Your task to perform on an android device: turn on bluetooth scan Image 0: 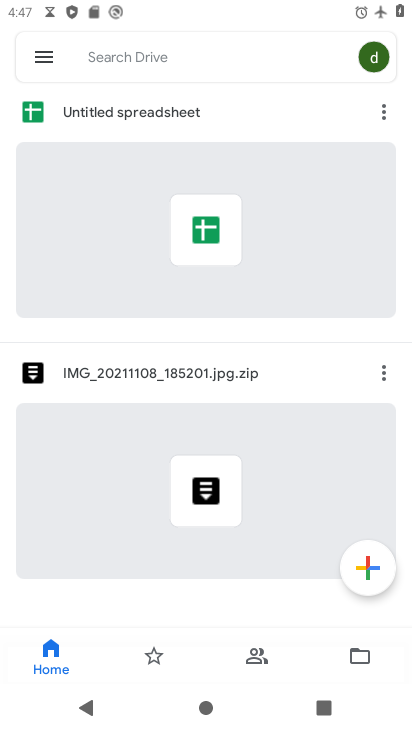
Step 0: press home button
Your task to perform on an android device: turn on bluetooth scan Image 1: 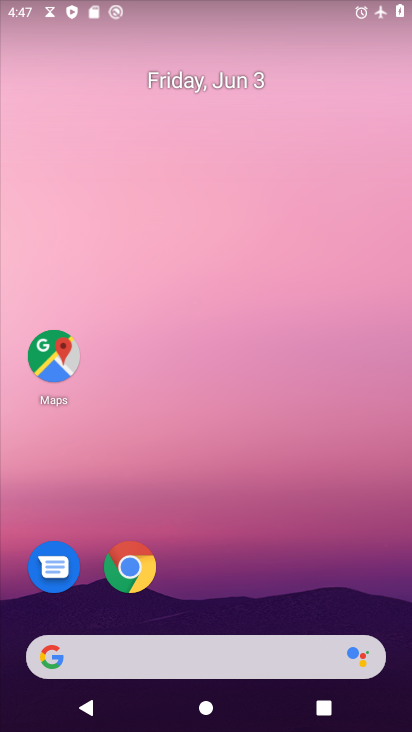
Step 1: drag from (261, 558) to (316, 43)
Your task to perform on an android device: turn on bluetooth scan Image 2: 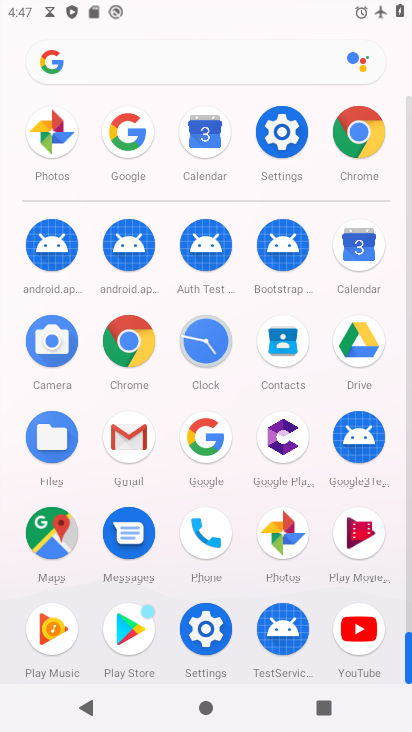
Step 2: click (280, 134)
Your task to perform on an android device: turn on bluetooth scan Image 3: 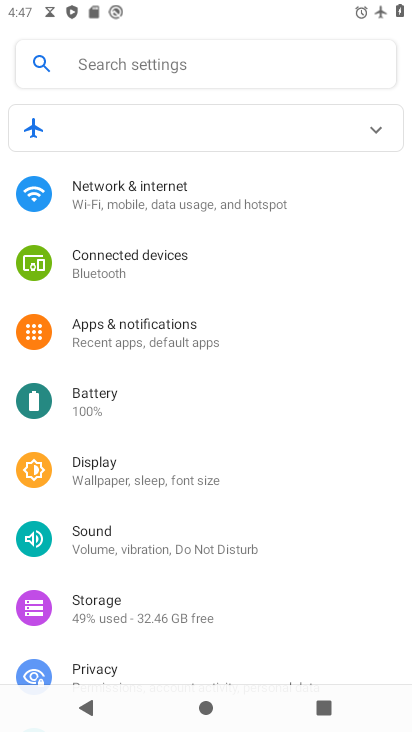
Step 3: drag from (167, 354) to (174, 211)
Your task to perform on an android device: turn on bluetooth scan Image 4: 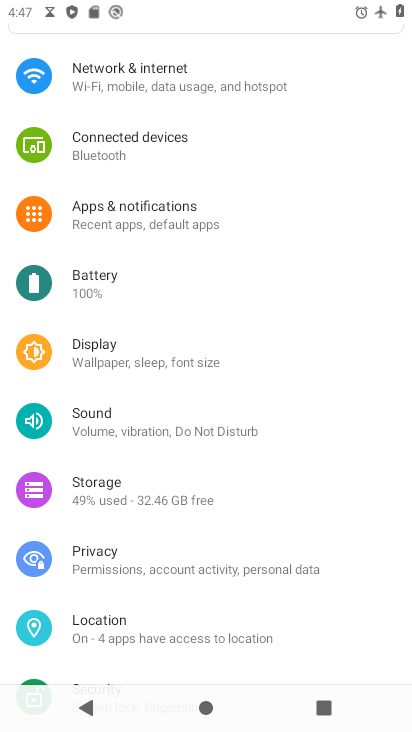
Step 4: drag from (153, 382) to (197, 273)
Your task to perform on an android device: turn on bluetooth scan Image 5: 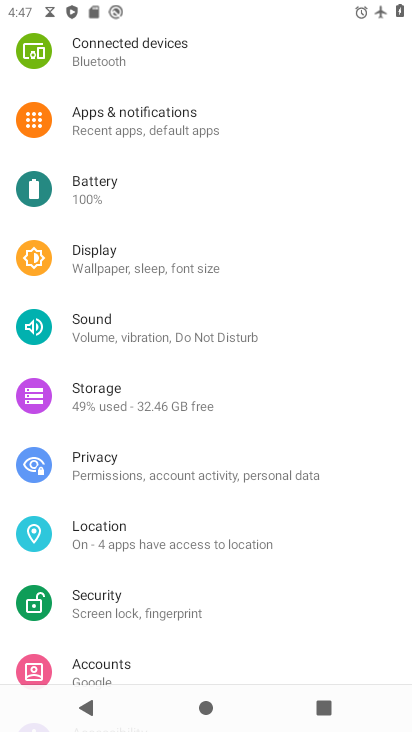
Step 5: click (191, 530)
Your task to perform on an android device: turn on bluetooth scan Image 6: 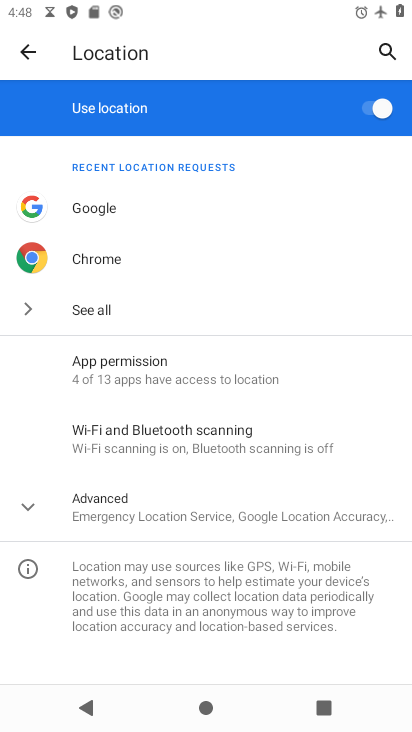
Step 6: click (220, 444)
Your task to perform on an android device: turn on bluetooth scan Image 7: 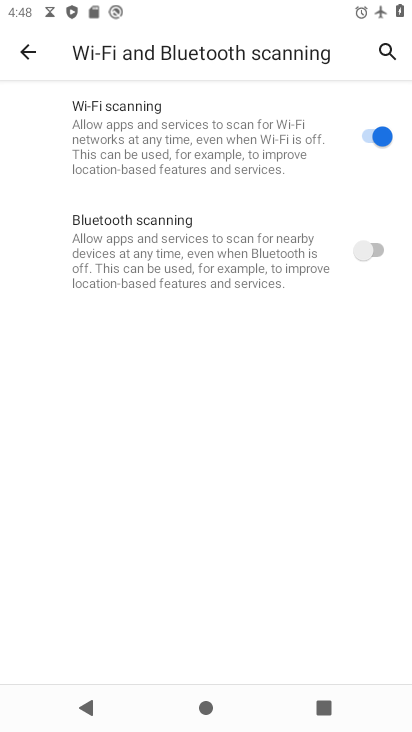
Step 7: click (370, 254)
Your task to perform on an android device: turn on bluetooth scan Image 8: 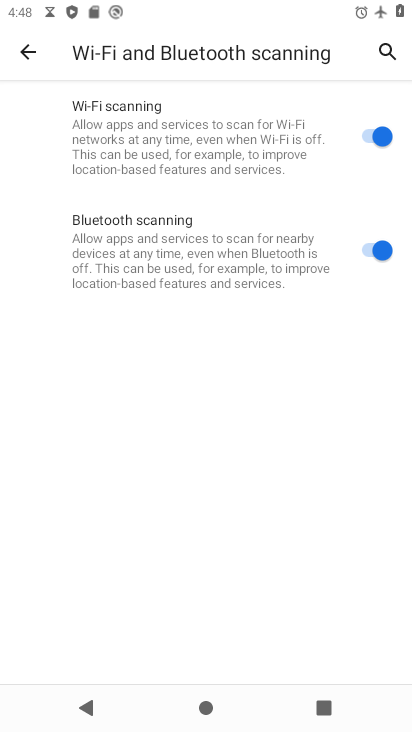
Step 8: task complete